Your task to perform on an android device: open app "DoorDash - Dasher" (install if not already installed) Image 0: 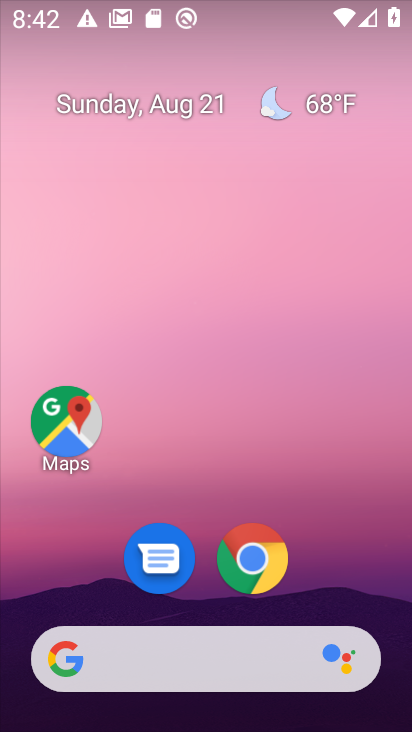
Step 0: drag from (214, 657) to (169, 88)
Your task to perform on an android device: open app "DoorDash - Dasher" (install if not already installed) Image 1: 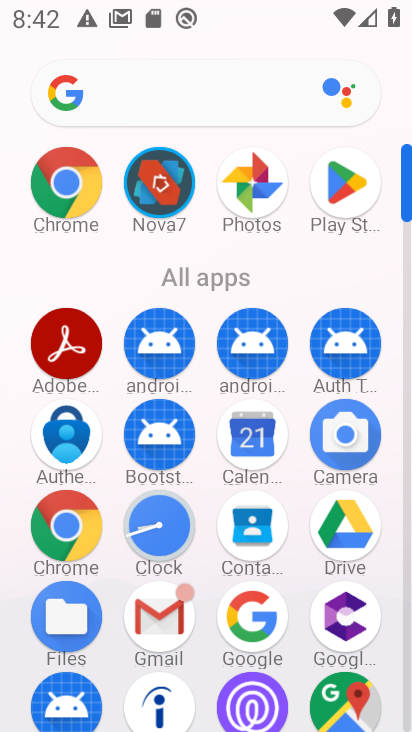
Step 1: click (363, 185)
Your task to perform on an android device: open app "DoorDash - Dasher" (install if not already installed) Image 2: 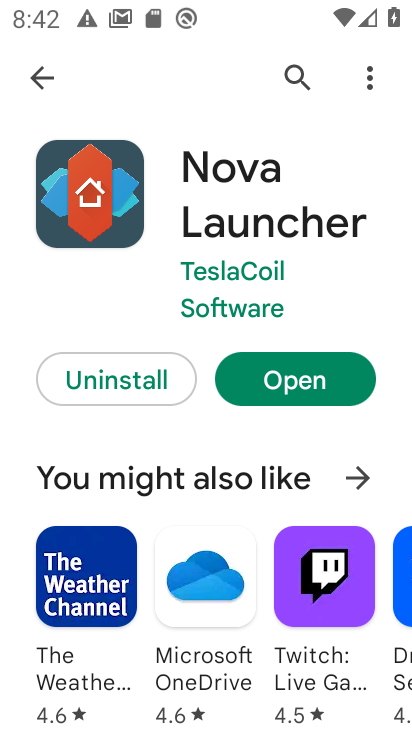
Step 2: click (307, 73)
Your task to perform on an android device: open app "DoorDash - Dasher" (install if not already installed) Image 3: 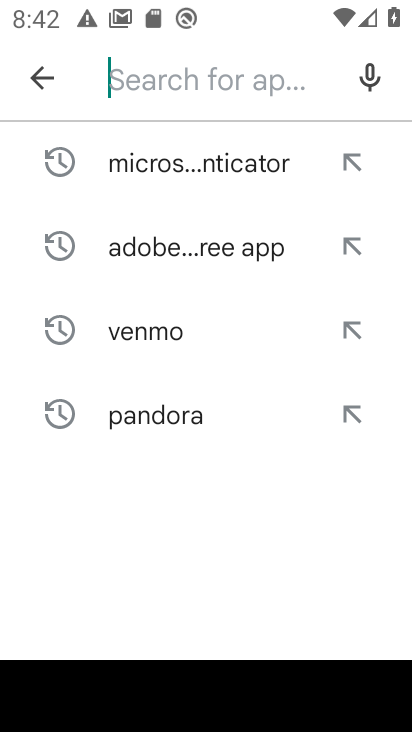
Step 3: type "doordash"
Your task to perform on an android device: open app "DoorDash - Dasher" (install if not already installed) Image 4: 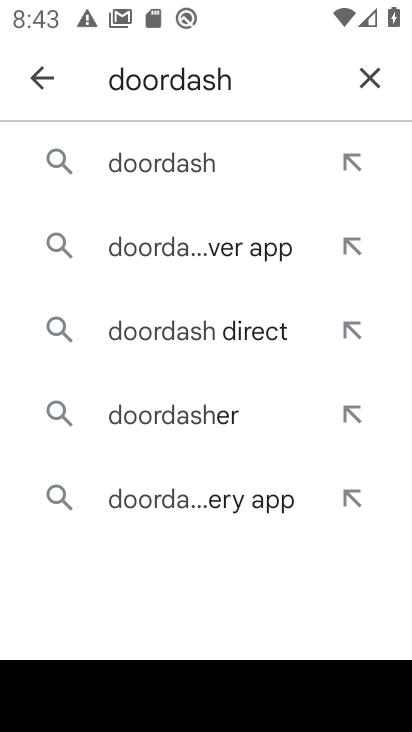
Step 4: click (174, 173)
Your task to perform on an android device: open app "DoorDash - Dasher" (install if not already installed) Image 5: 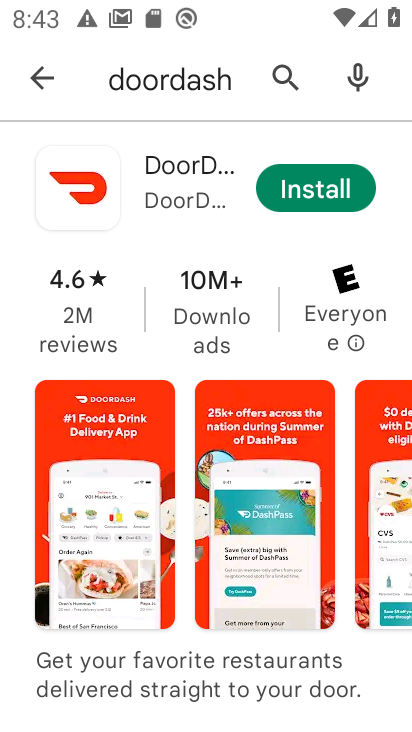
Step 5: click (305, 171)
Your task to perform on an android device: open app "DoorDash - Dasher" (install if not already installed) Image 6: 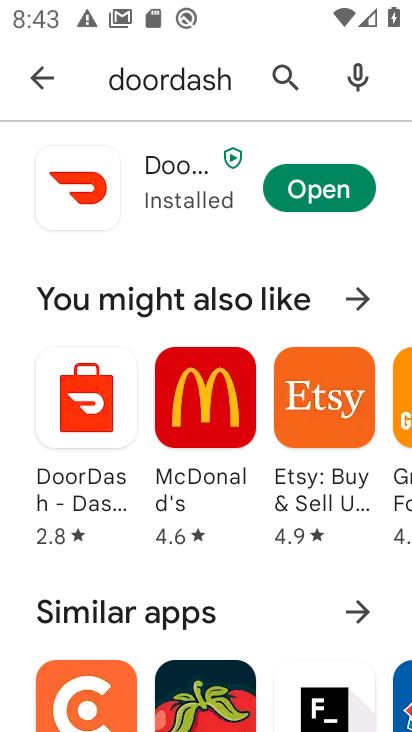
Step 6: click (309, 180)
Your task to perform on an android device: open app "DoorDash - Dasher" (install if not already installed) Image 7: 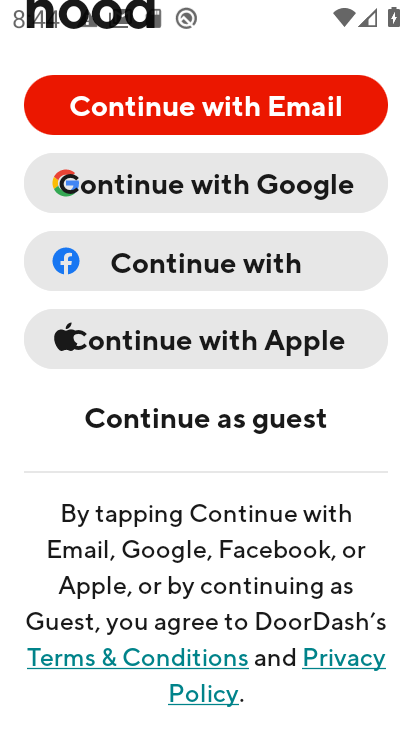
Step 7: task complete